Your task to perform on an android device: see creations saved in the google photos Image 0: 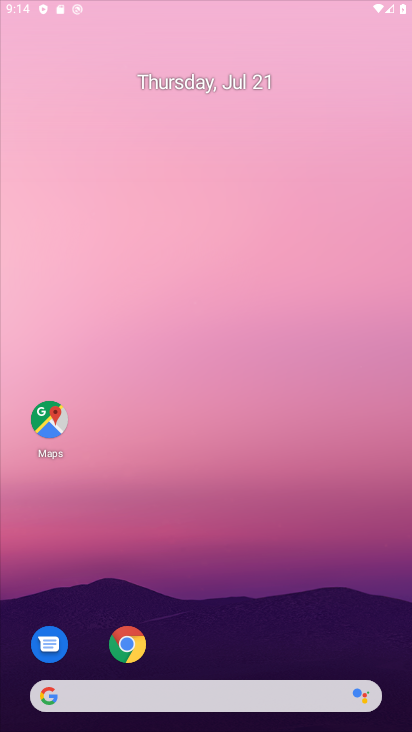
Step 0: click (257, 329)
Your task to perform on an android device: see creations saved in the google photos Image 1: 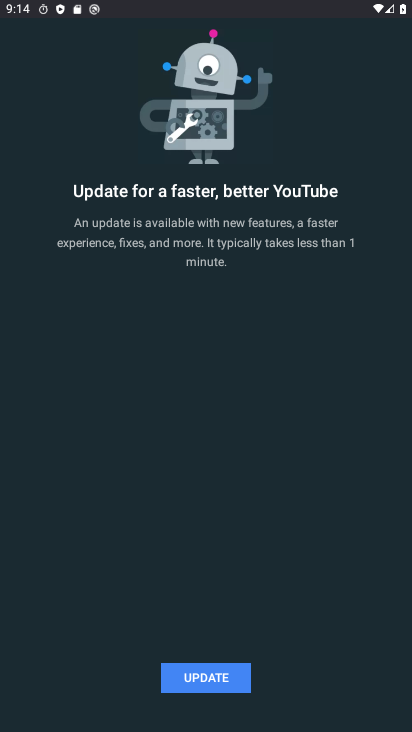
Step 1: press back button
Your task to perform on an android device: see creations saved in the google photos Image 2: 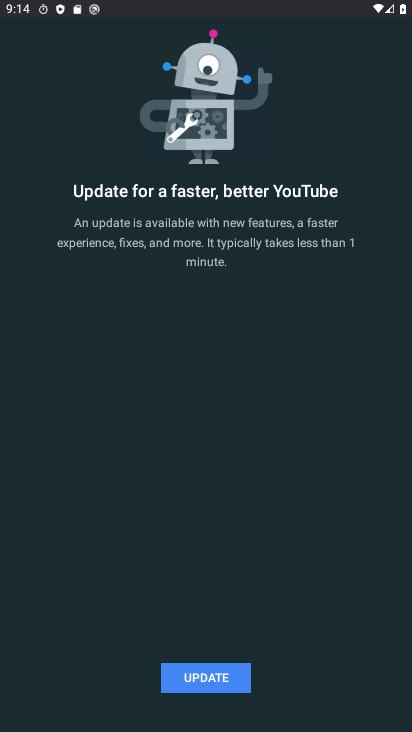
Step 2: press back button
Your task to perform on an android device: see creations saved in the google photos Image 3: 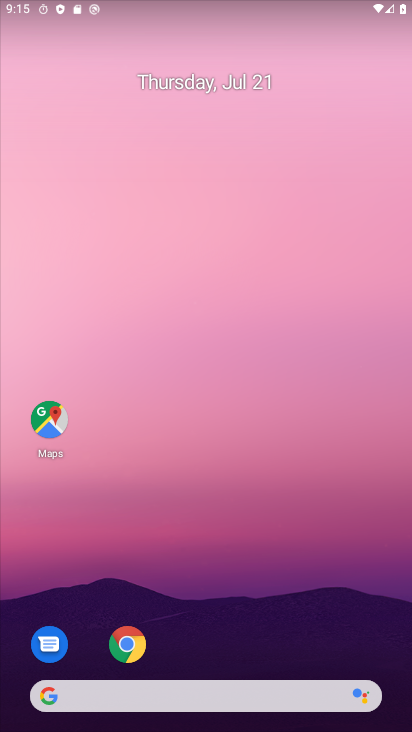
Step 3: drag from (220, 584) to (131, 226)
Your task to perform on an android device: see creations saved in the google photos Image 4: 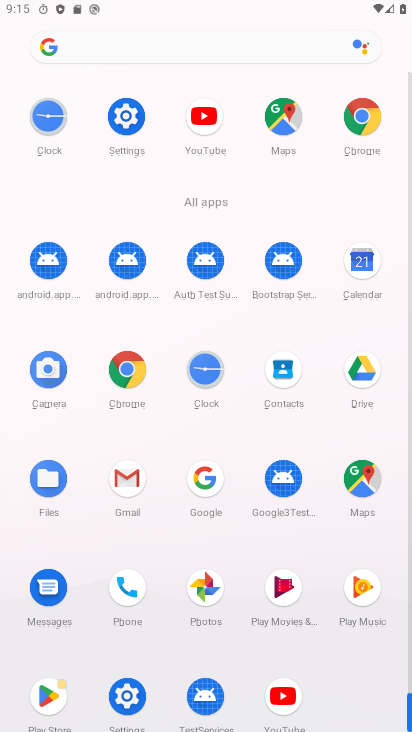
Step 4: click (209, 581)
Your task to perform on an android device: see creations saved in the google photos Image 5: 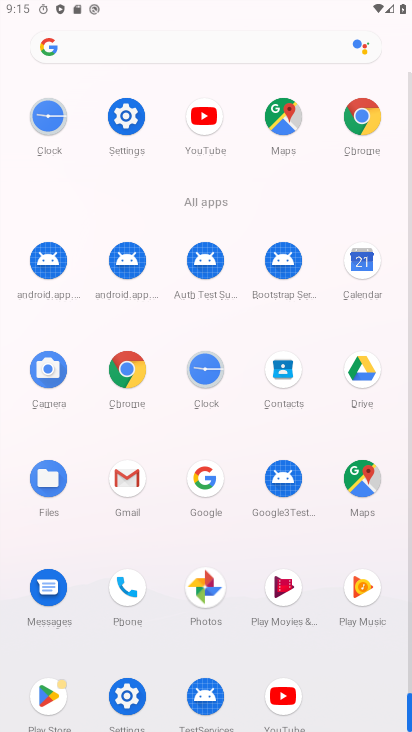
Step 5: click (209, 581)
Your task to perform on an android device: see creations saved in the google photos Image 6: 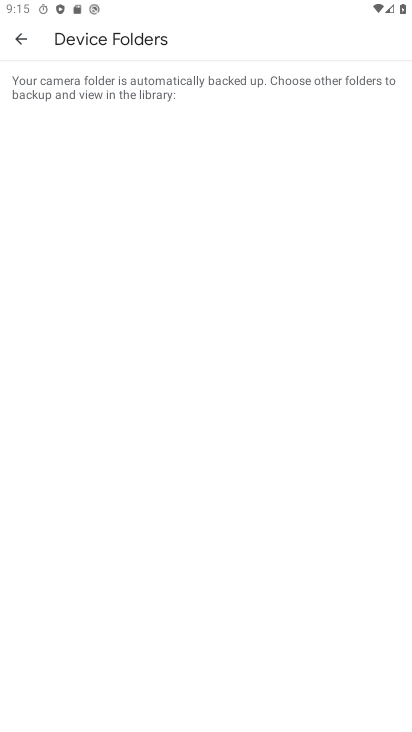
Step 6: click (17, 36)
Your task to perform on an android device: see creations saved in the google photos Image 7: 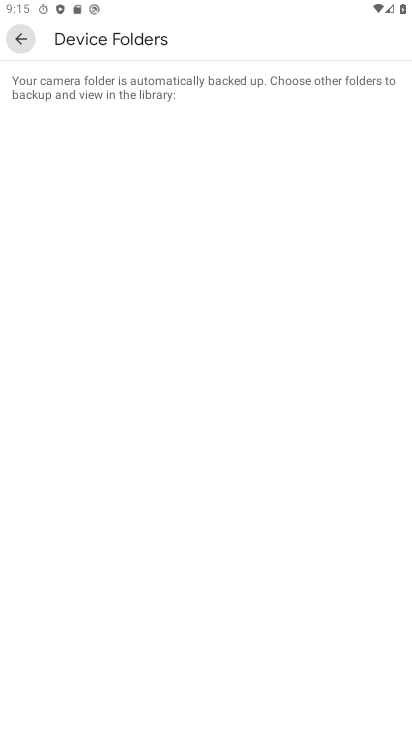
Step 7: click (26, 32)
Your task to perform on an android device: see creations saved in the google photos Image 8: 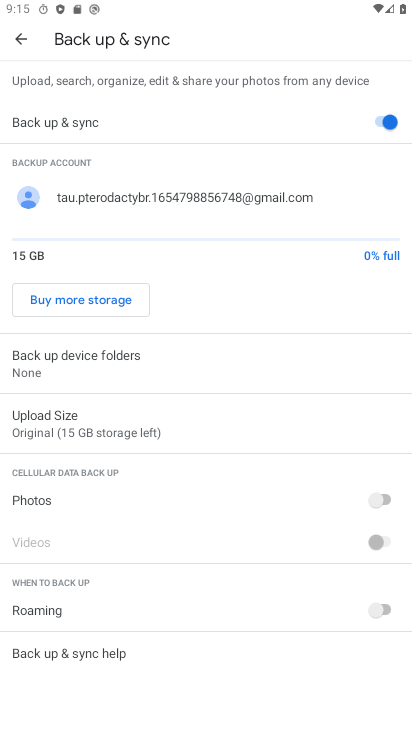
Step 8: click (24, 39)
Your task to perform on an android device: see creations saved in the google photos Image 9: 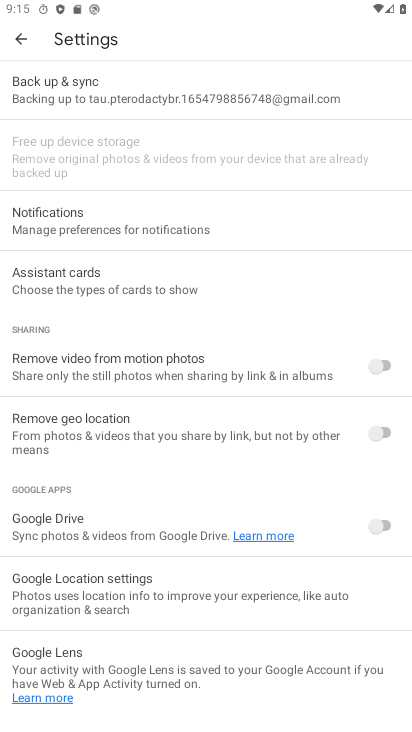
Step 9: click (25, 40)
Your task to perform on an android device: see creations saved in the google photos Image 10: 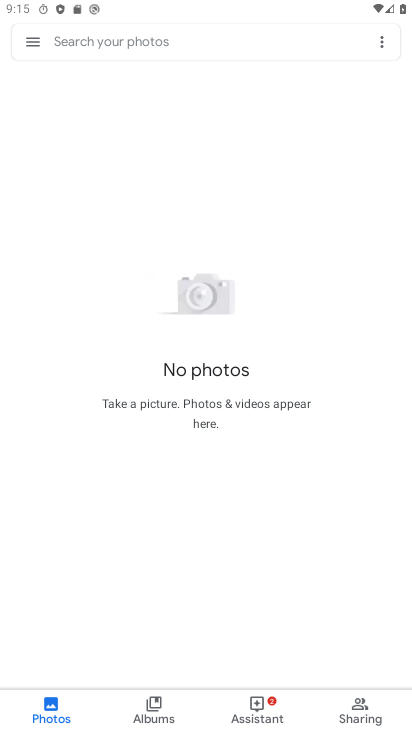
Step 10: task complete